Your task to perform on an android device: Open Maps and search for coffee Image 0: 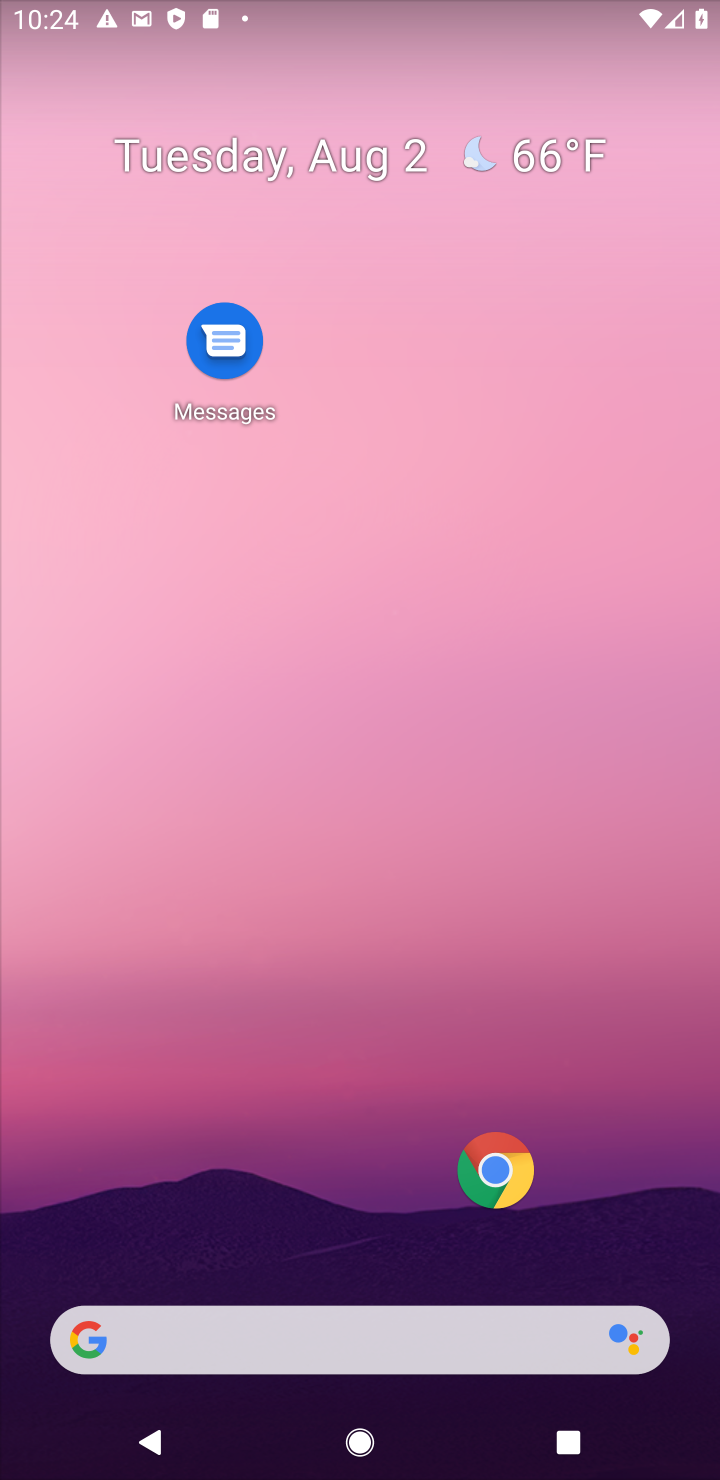
Step 0: drag from (401, 990) to (487, 182)
Your task to perform on an android device: Open Maps and search for coffee Image 1: 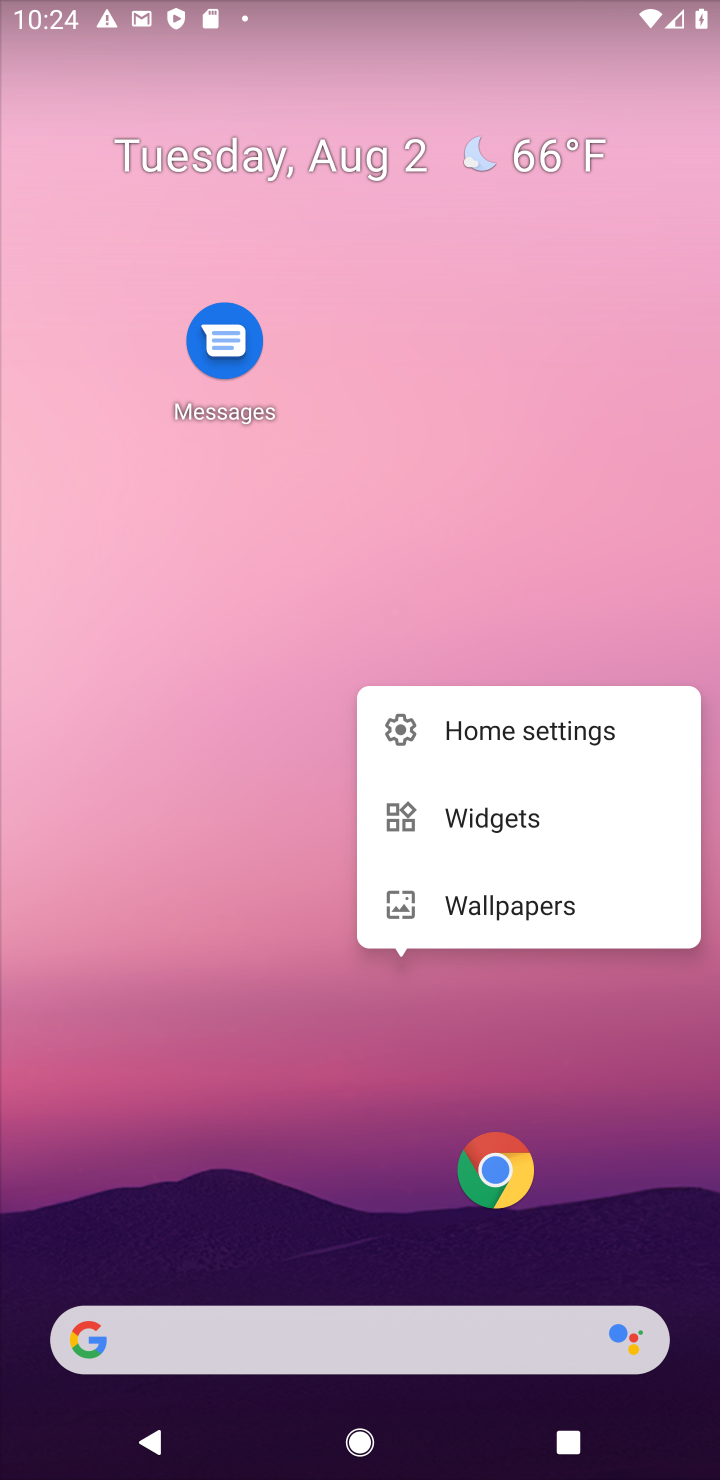
Step 1: drag from (400, 822) to (437, 471)
Your task to perform on an android device: Open Maps and search for coffee Image 2: 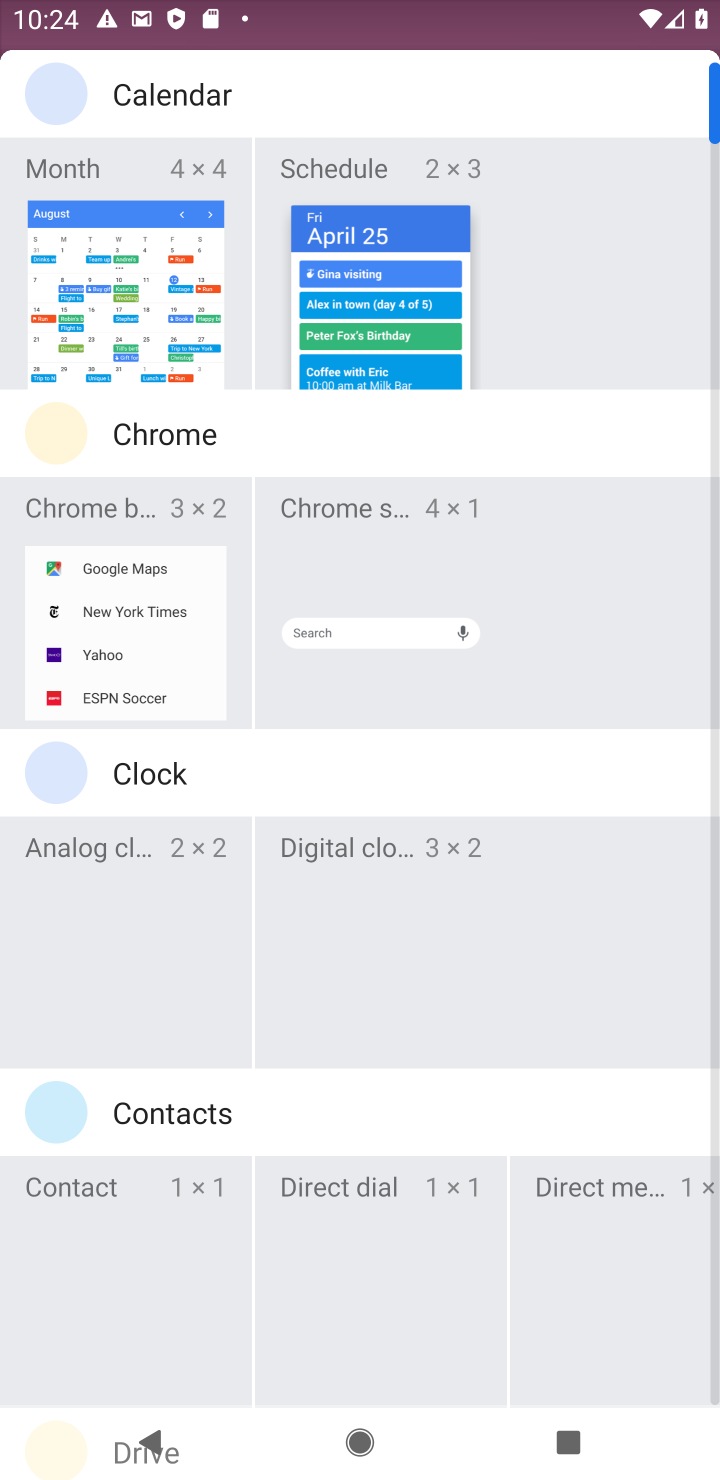
Step 2: drag from (362, 1204) to (433, 521)
Your task to perform on an android device: Open Maps and search for coffee Image 3: 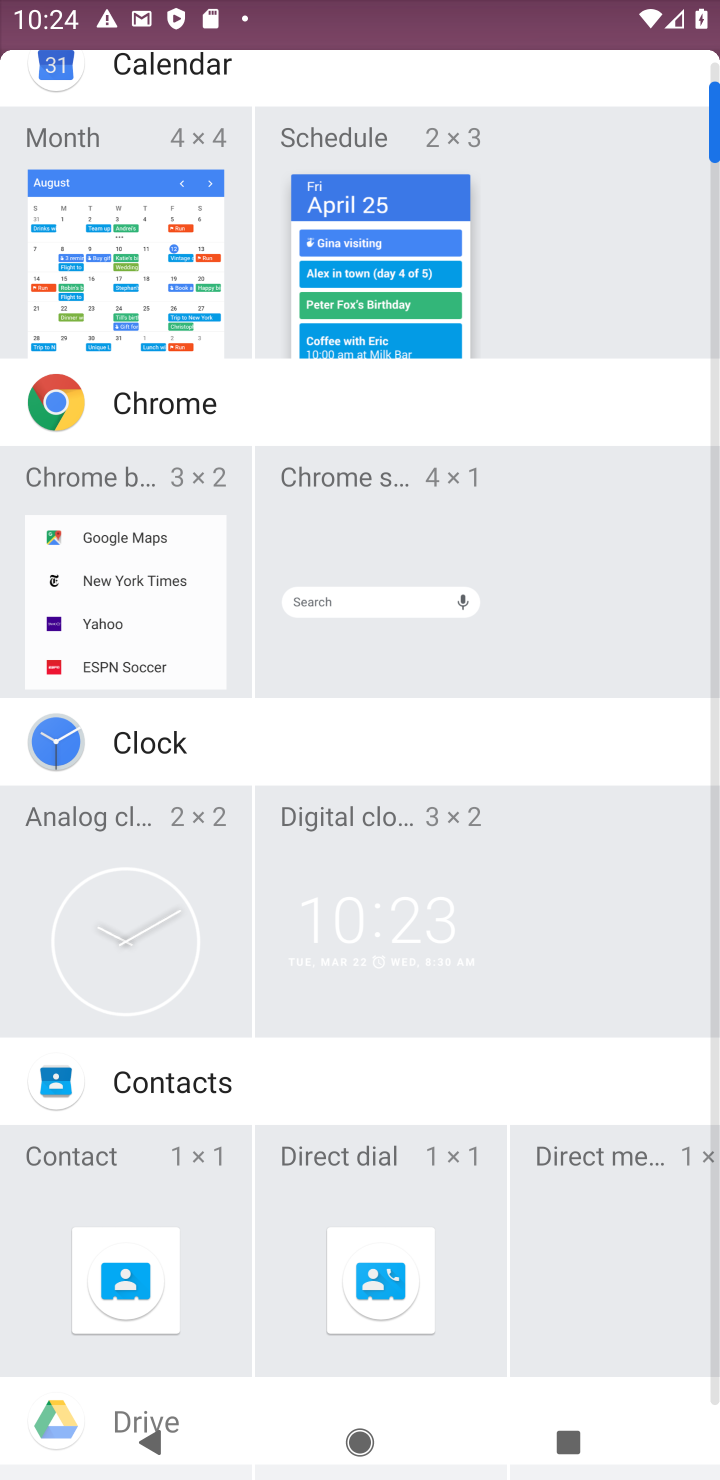
Step 3: press home button
Your task to perform on an android device: Open Maps and search for coffee Image 4: 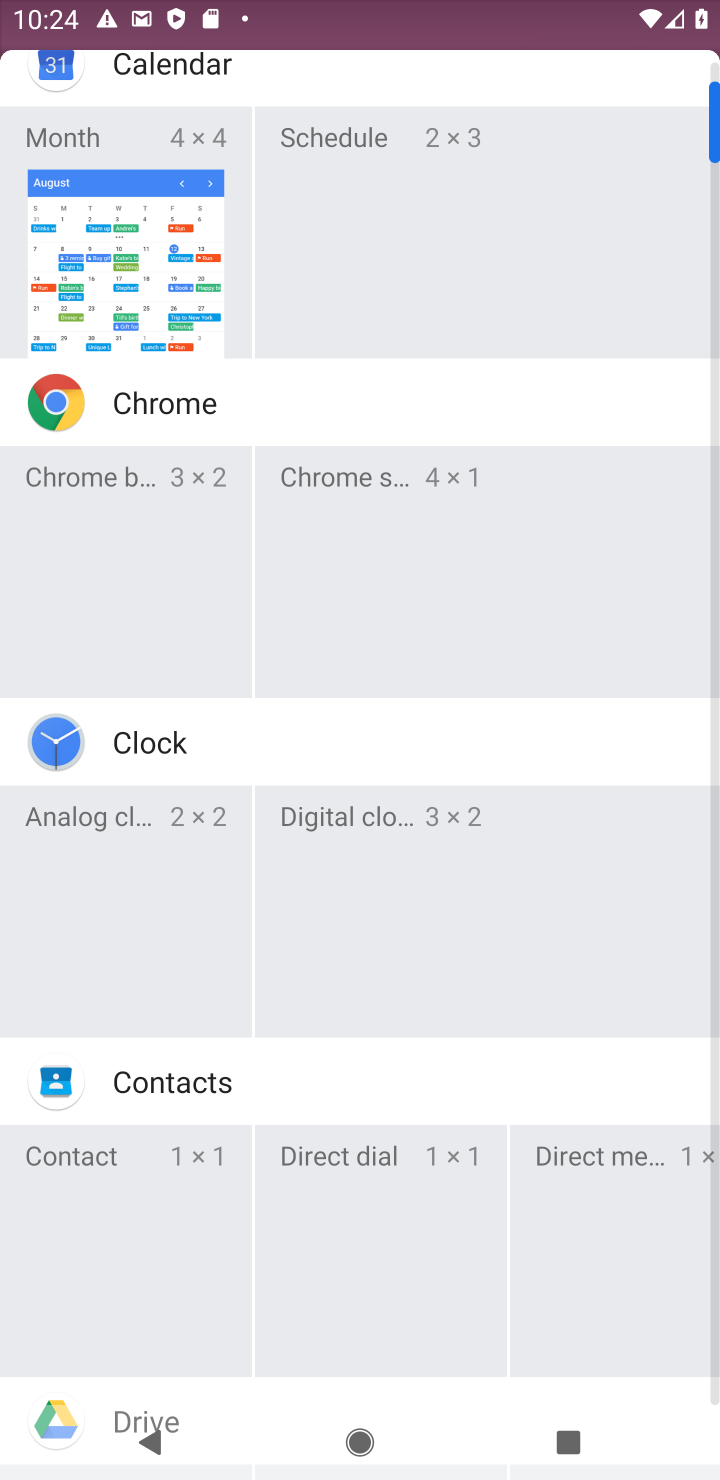
Step 4: press home button
Your task to perform on an android device: Open Maps and search for coffee Image 5: 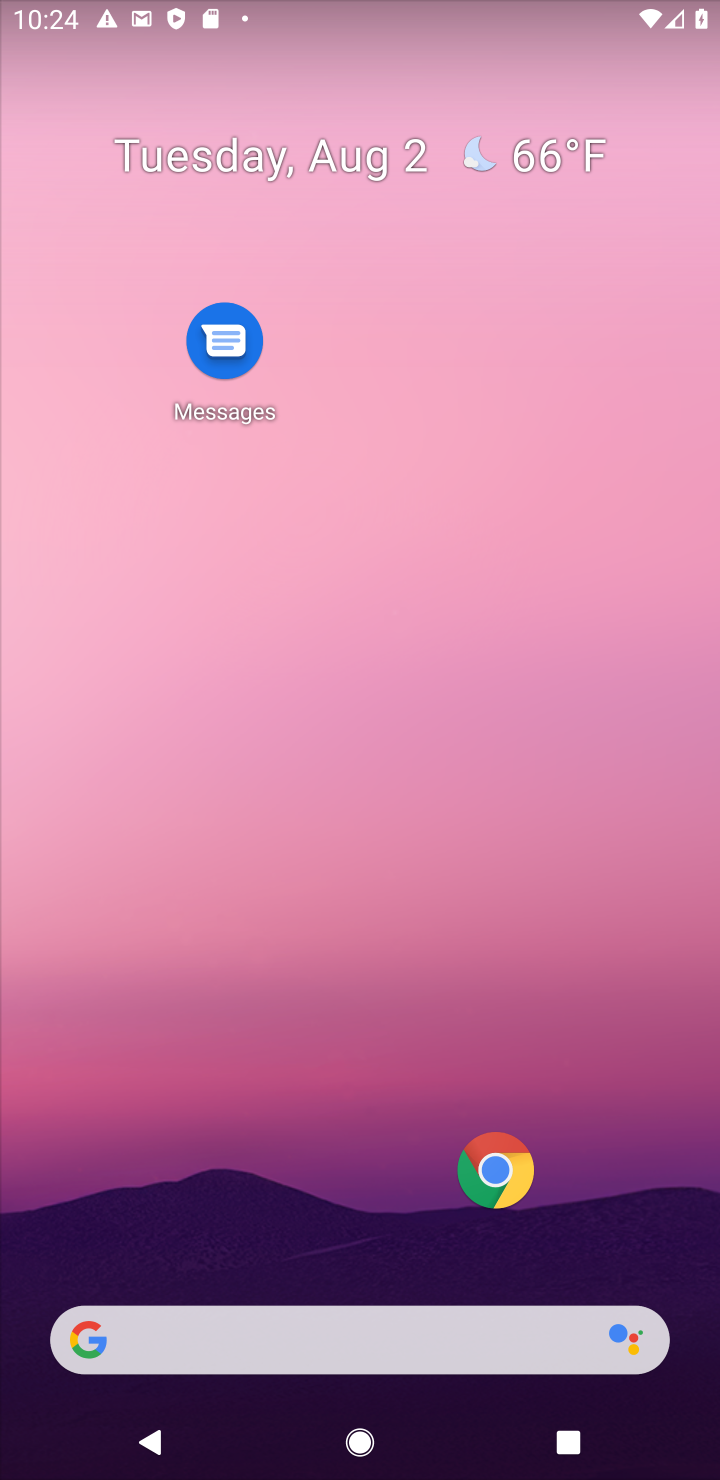
Step 5: drag from (384, 1266) to (443, 563)
Your task to perform on an android device: Open Maps and search for coffee Image 6: 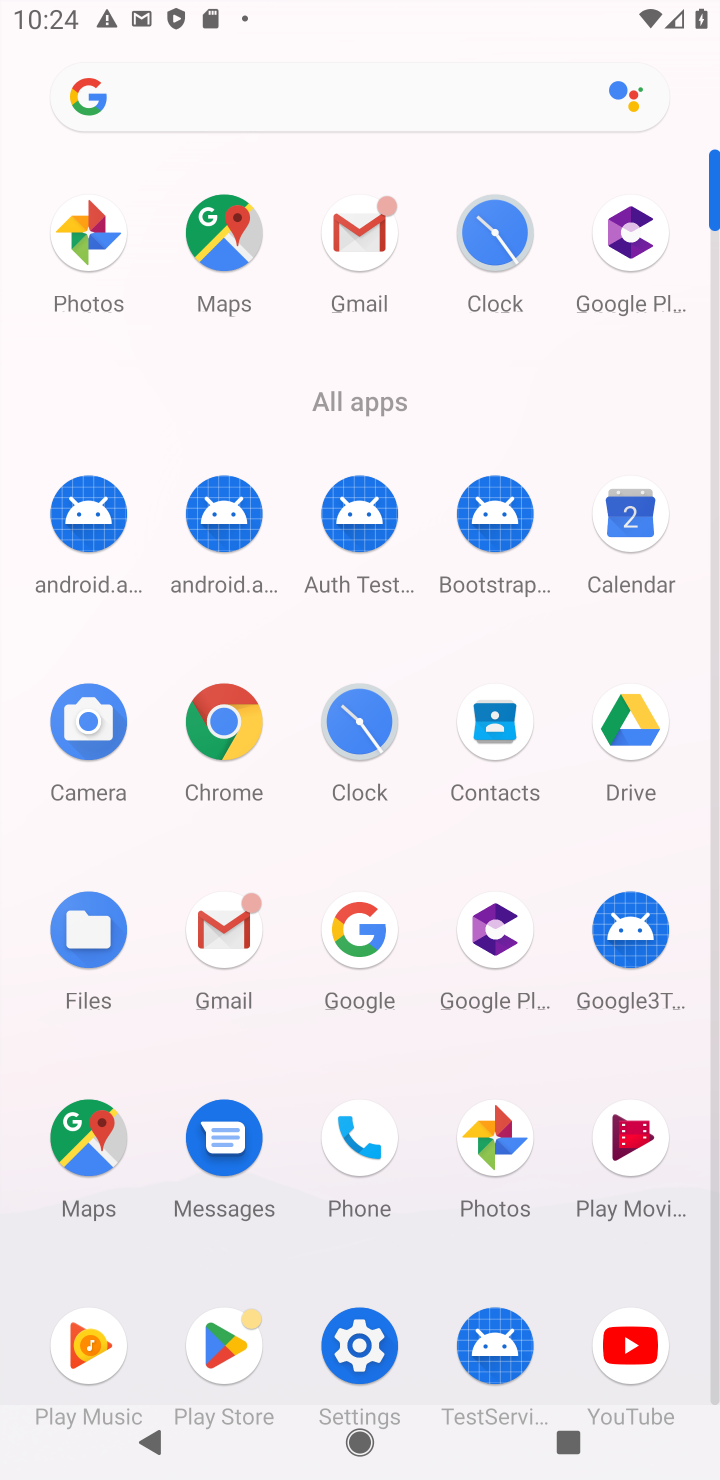
Step 6: click (229, 1325)
Your task to perform on an android device: Open Maps and search for coffee Image 7: 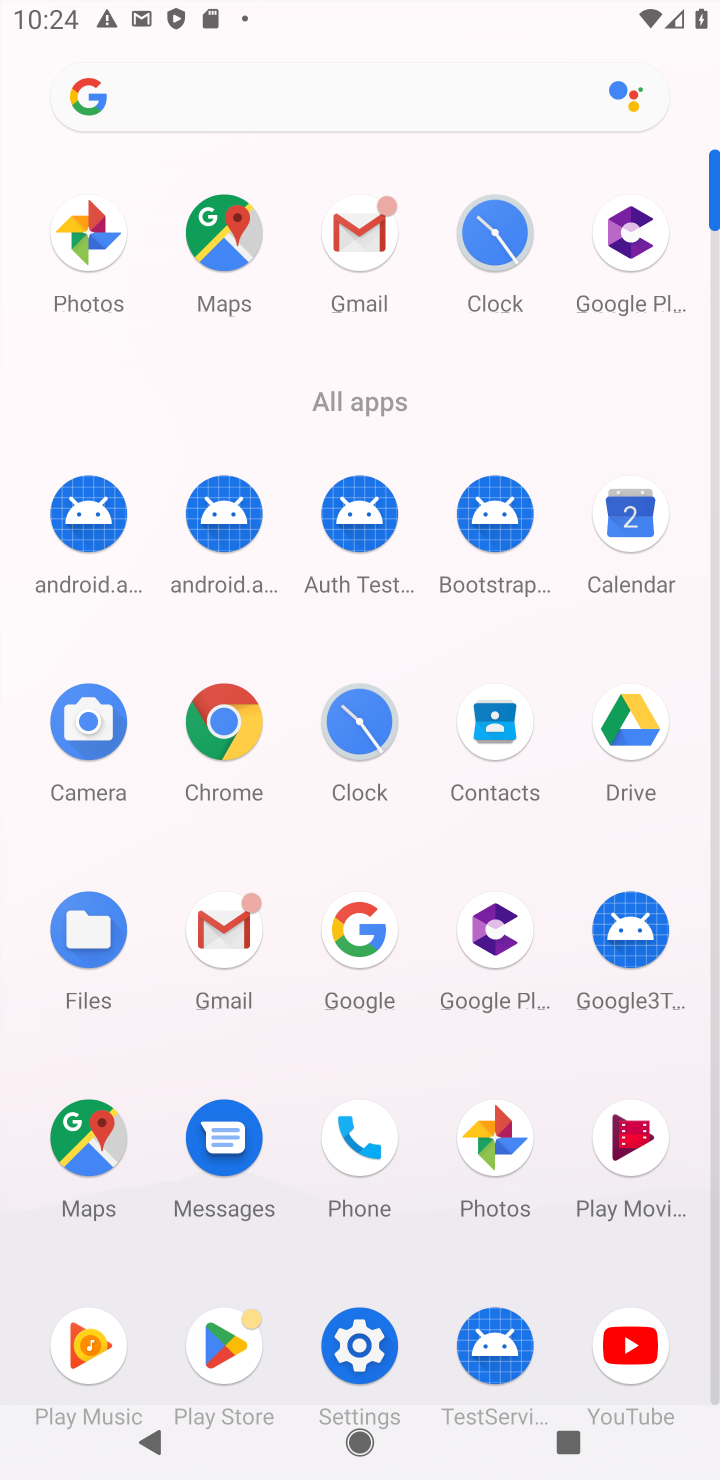
Step 7: click (235, 1336)
Your task to perform on an android device: Open Maps and search for coffee Image 8: 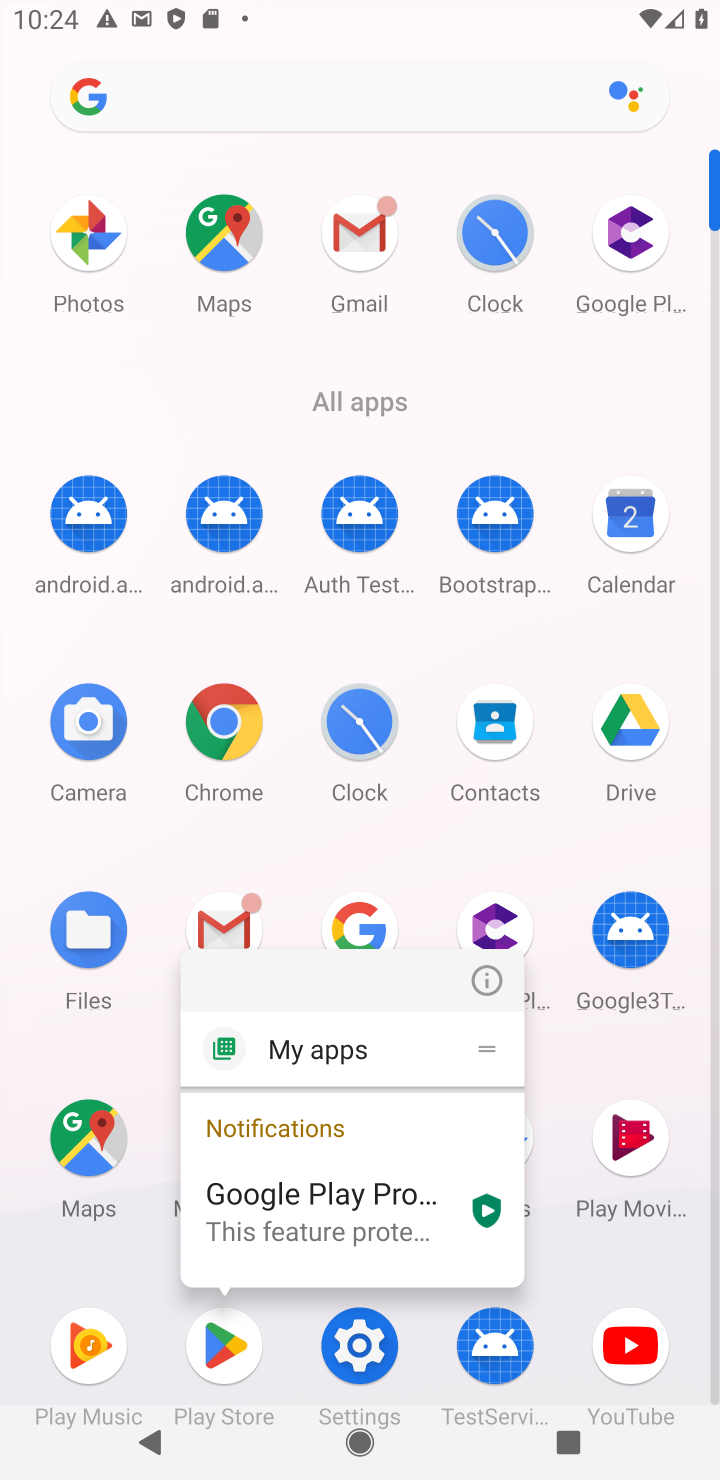
Step 8: click (497, 980)
Your task to perform on an android device: Open Maps and search for coffee Image 9: 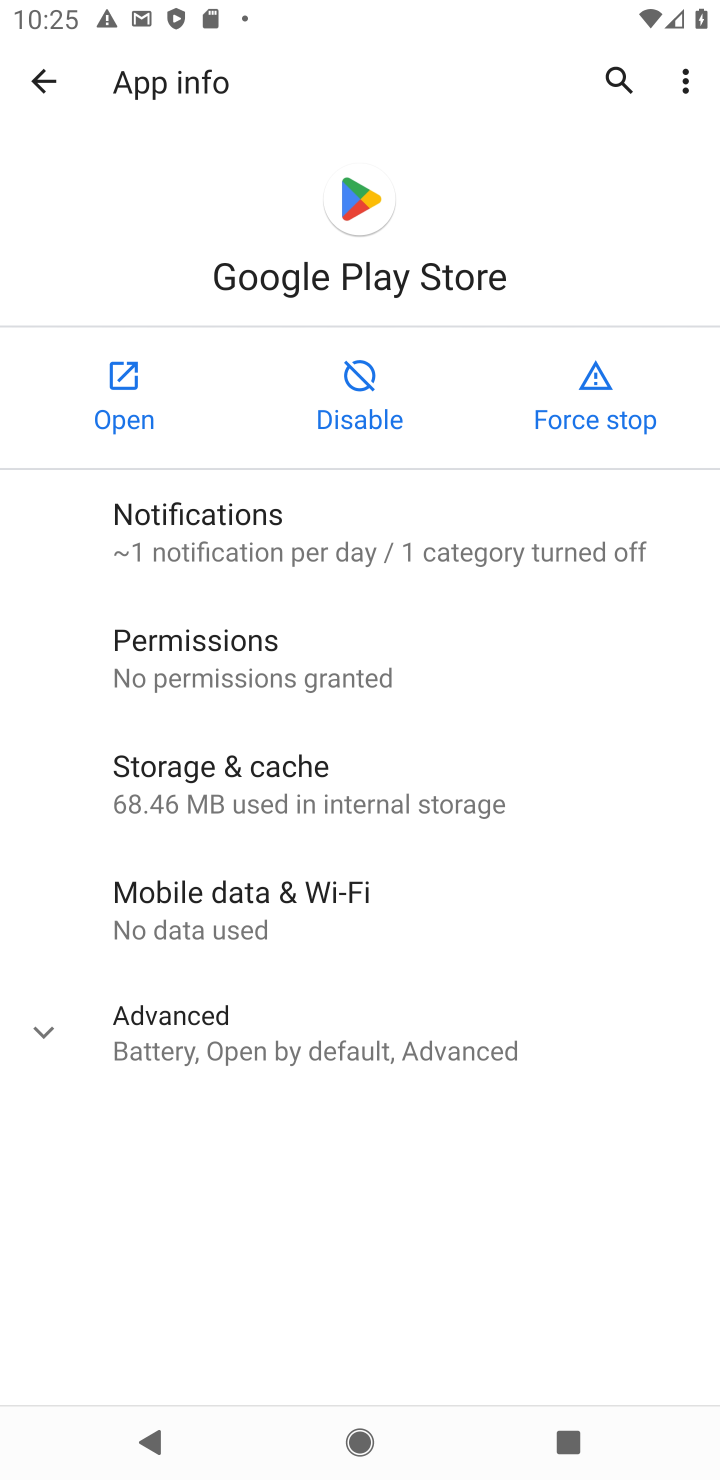
Step 9: click (123, 392)
Your task to perform on an android device: Open Maps and search for coffee Image 10: 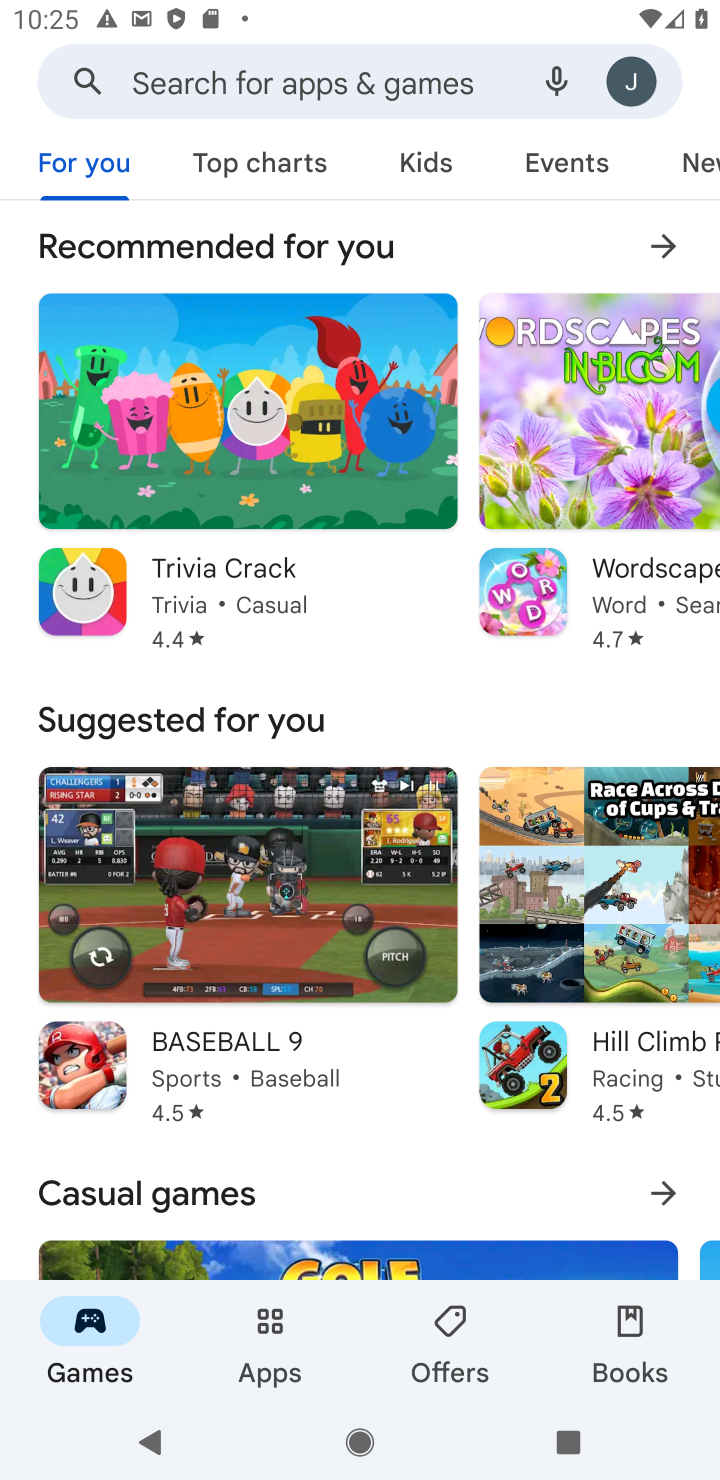
Step 10: drag from (470, 972) to (514, 376)
Your task to perform on an android device: Open Maps and search for coffee Image 11: 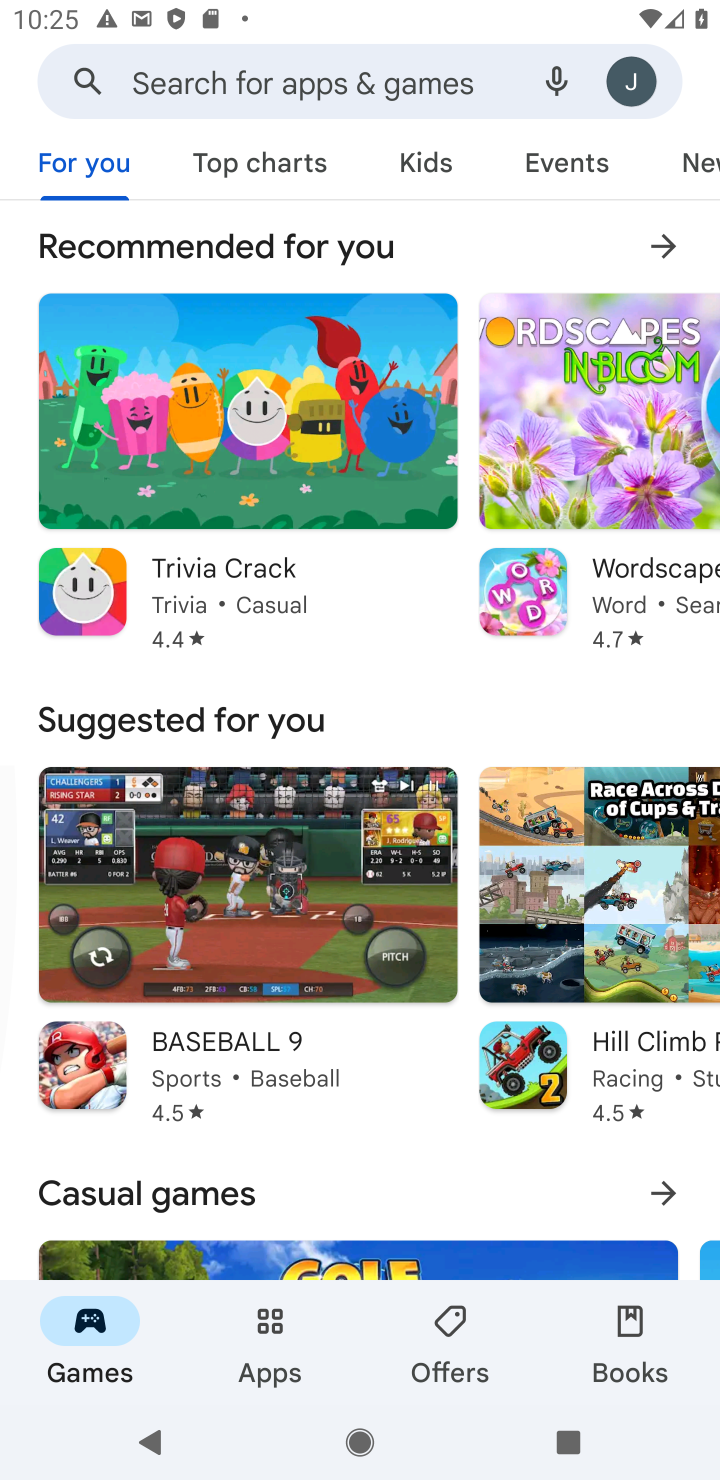
Step 11: drag from (434, 1064) to (407, 524)
Your task to perform on an android device: Open Maps and search for coffee Image 12: 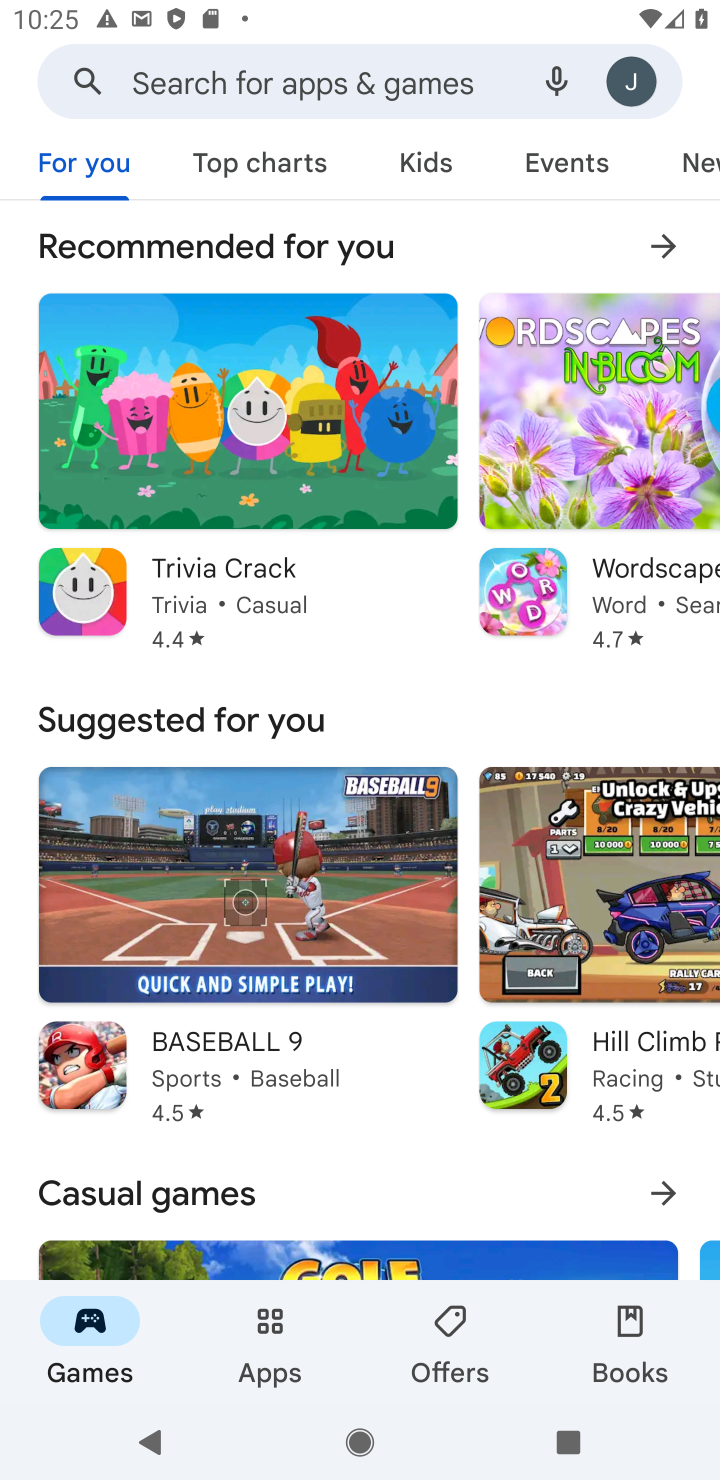
Step 12: click (269, 78)
Your task to perform on an android device: Open Maps and search for coffee Image 13: 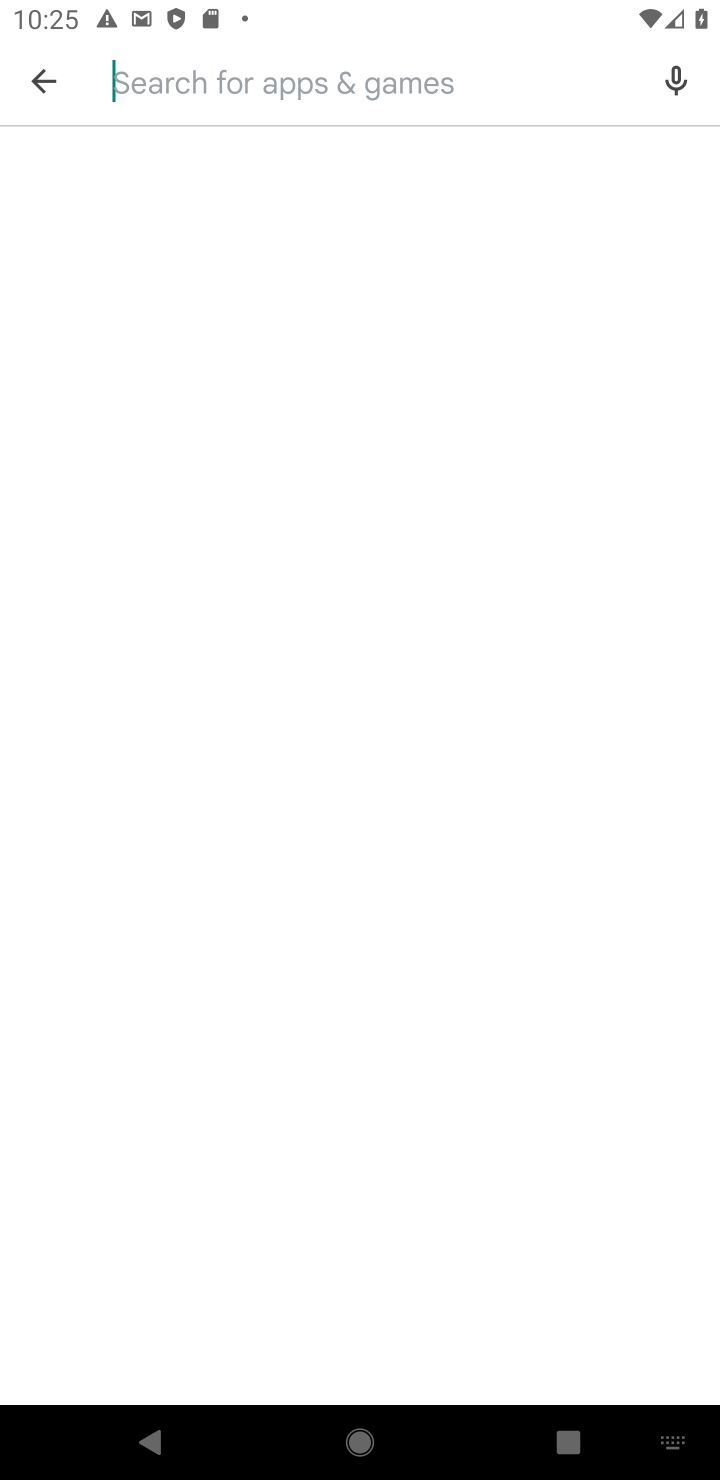
Step 13: press home button
Your task to perform on an android device: Open Maps and search for coffee Image 14: 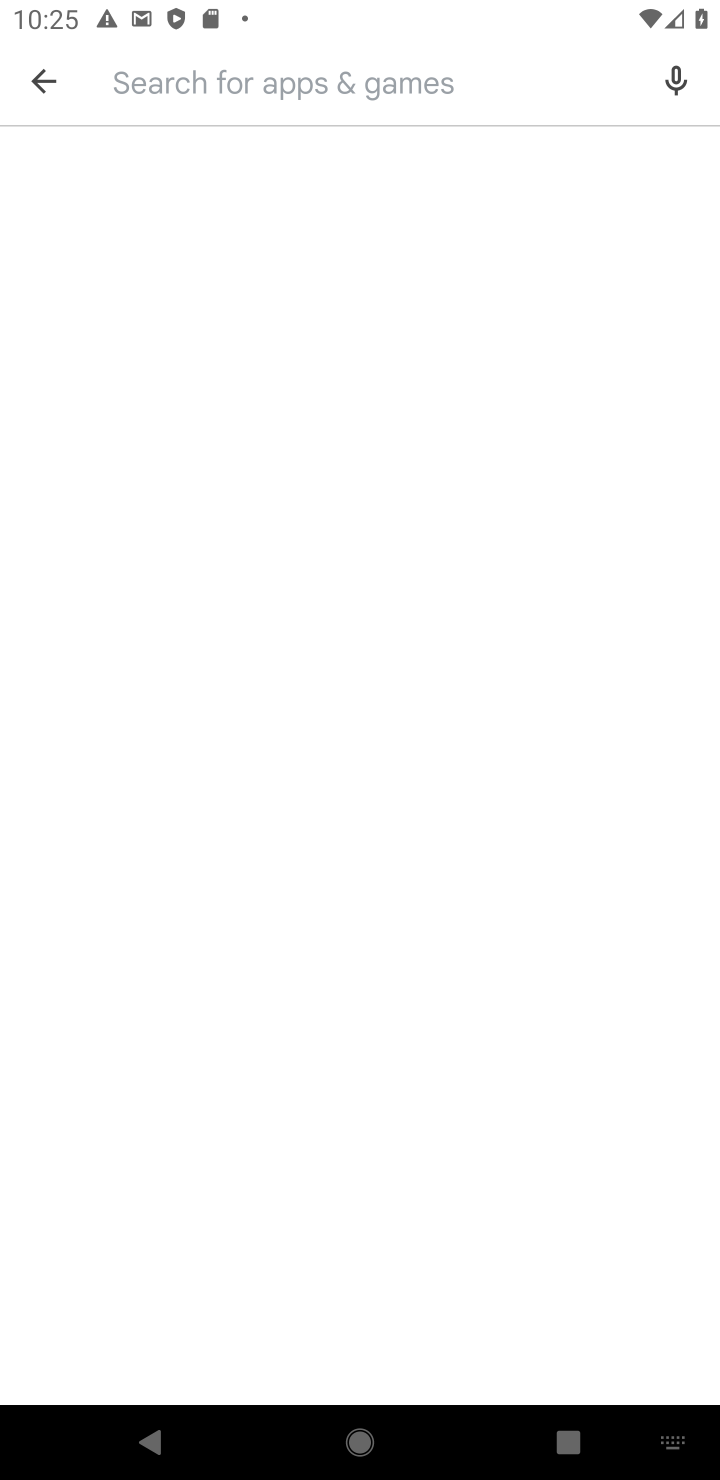
Step 14: press home button
Your task to perform on an android device: Open Maps and search for coffee Image 15: 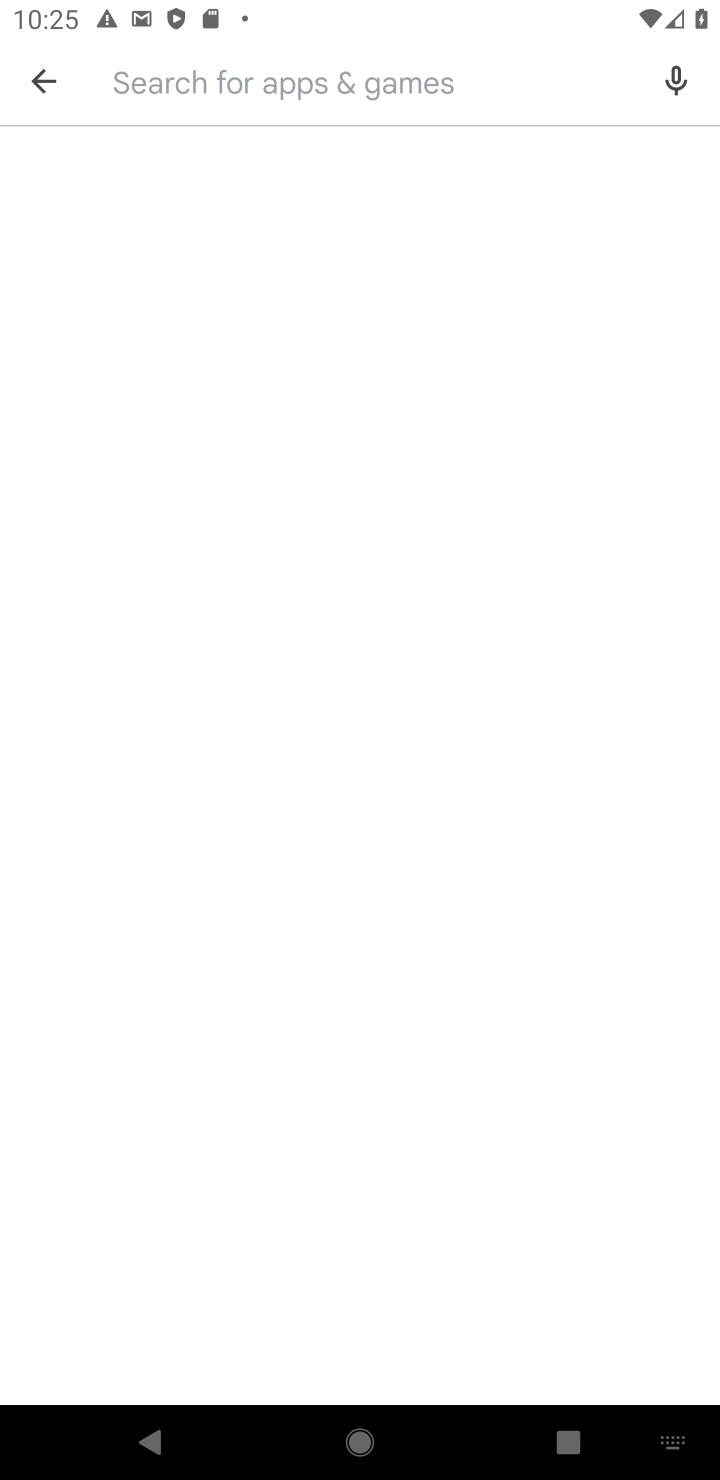
Step 15: click (383, 290)
Your task to perform on an android device: Open Maps and search for coffee Image 16: 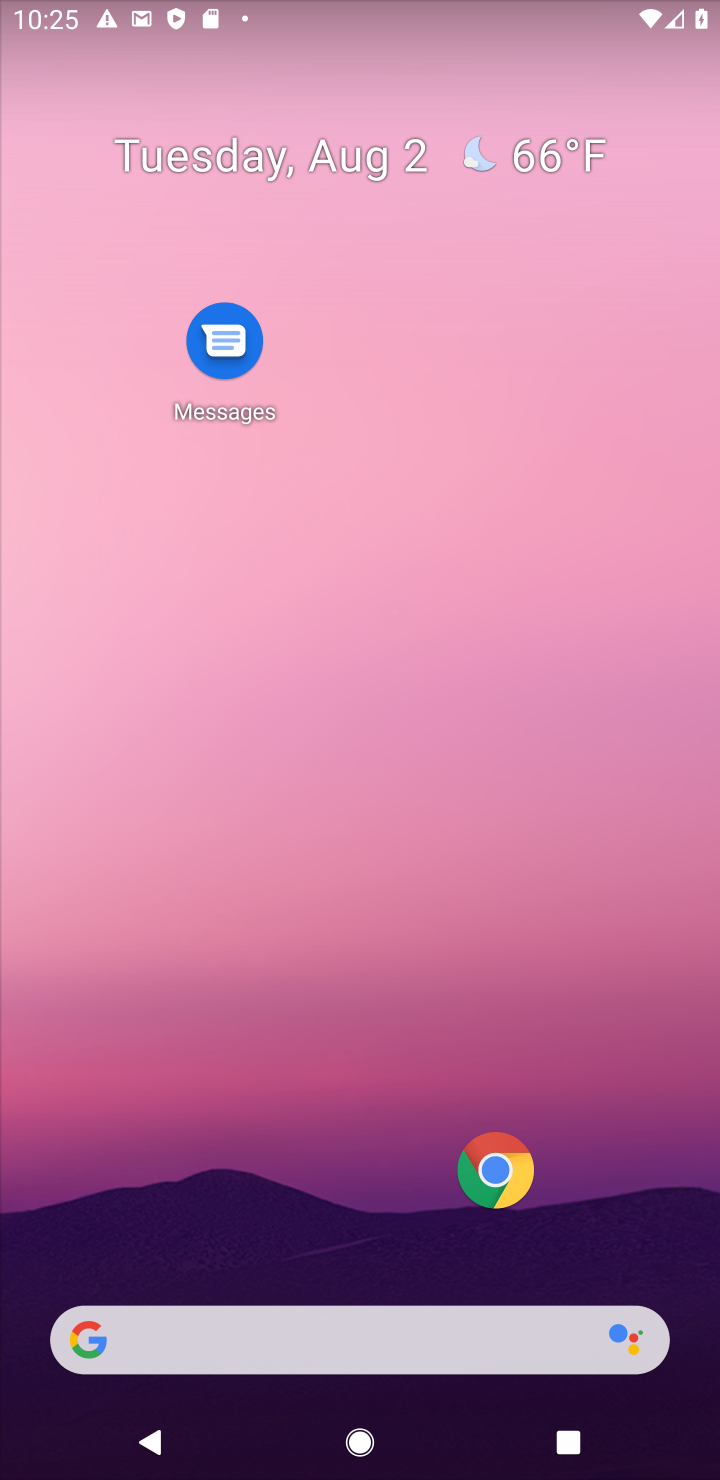
Step 16: drag from (404, 1245) to (468, 95)
Your task to perform on an android device: Open Maps and search for coffee Image 17: 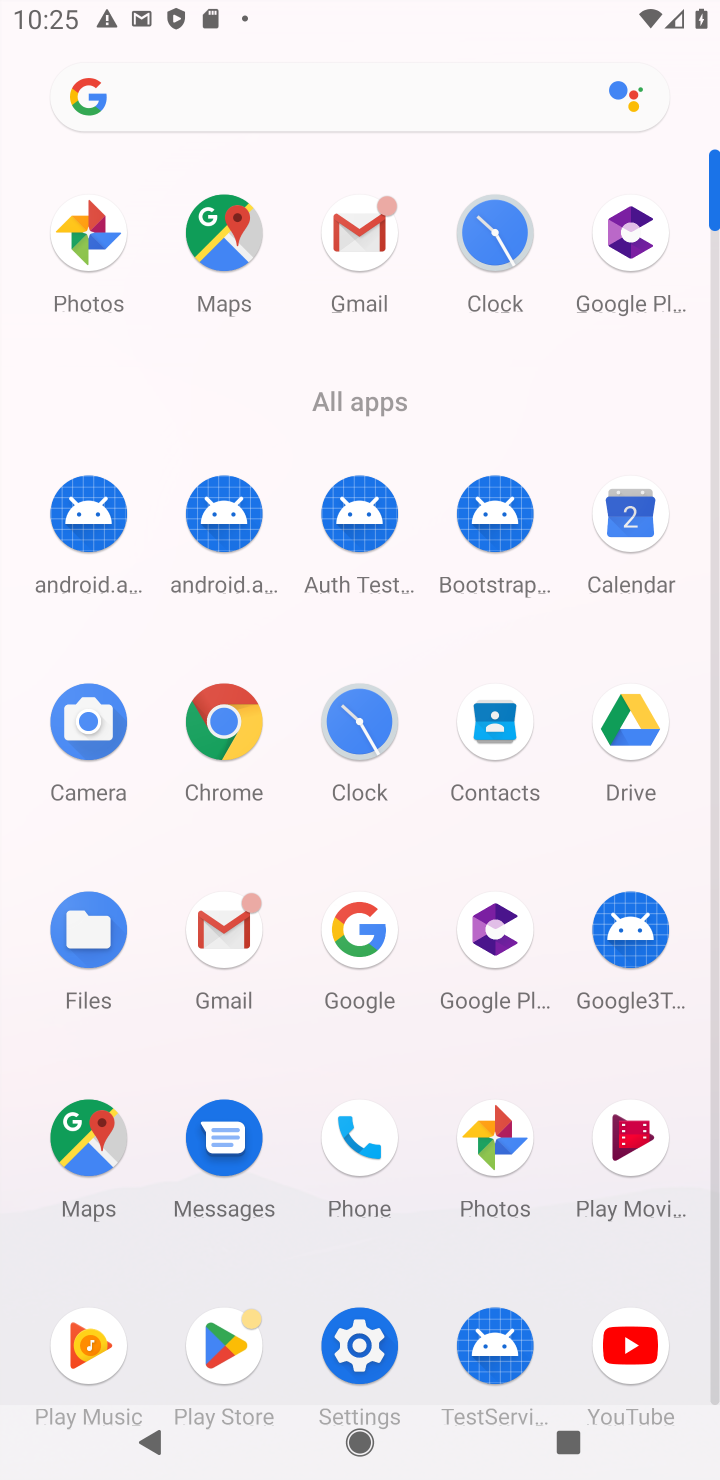
Step 17: click (212, 219)
Your task to perform on an android device: Open Maps and search for coffee Image 18: 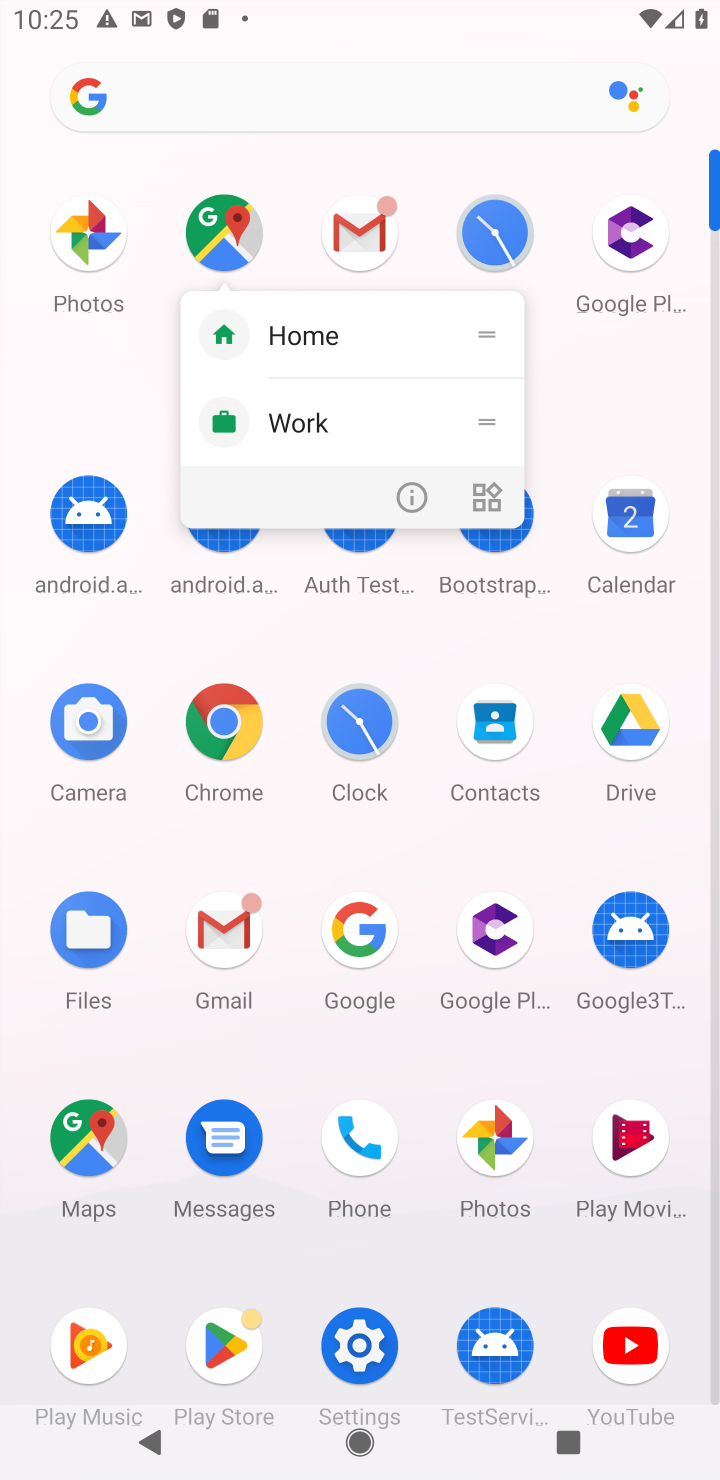
Step 18: click (392, 501)
Your task to perform on an android device: Open Maps and search for coffee Image 19: 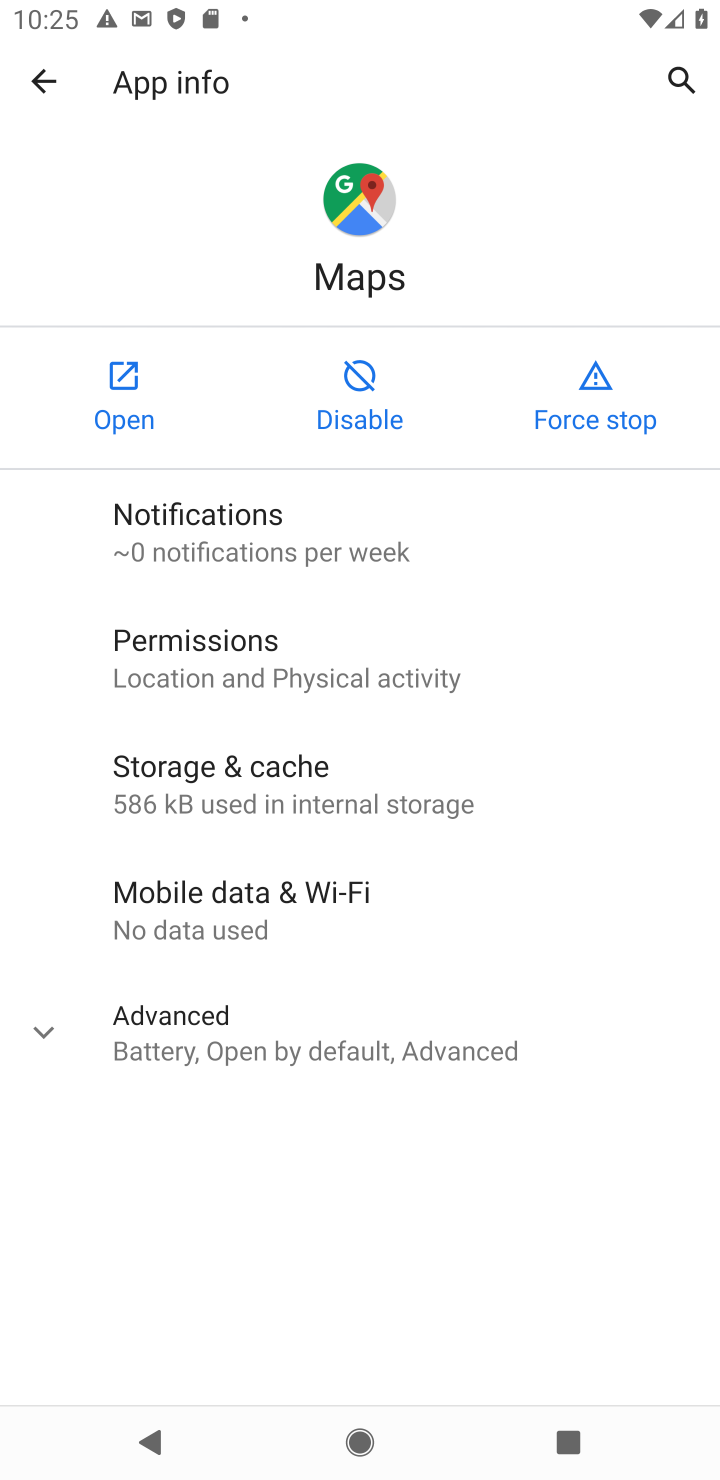
Step 19: click (122, 414)
Your task to perform on an android device: Open Maps and search for coffee Image 20: 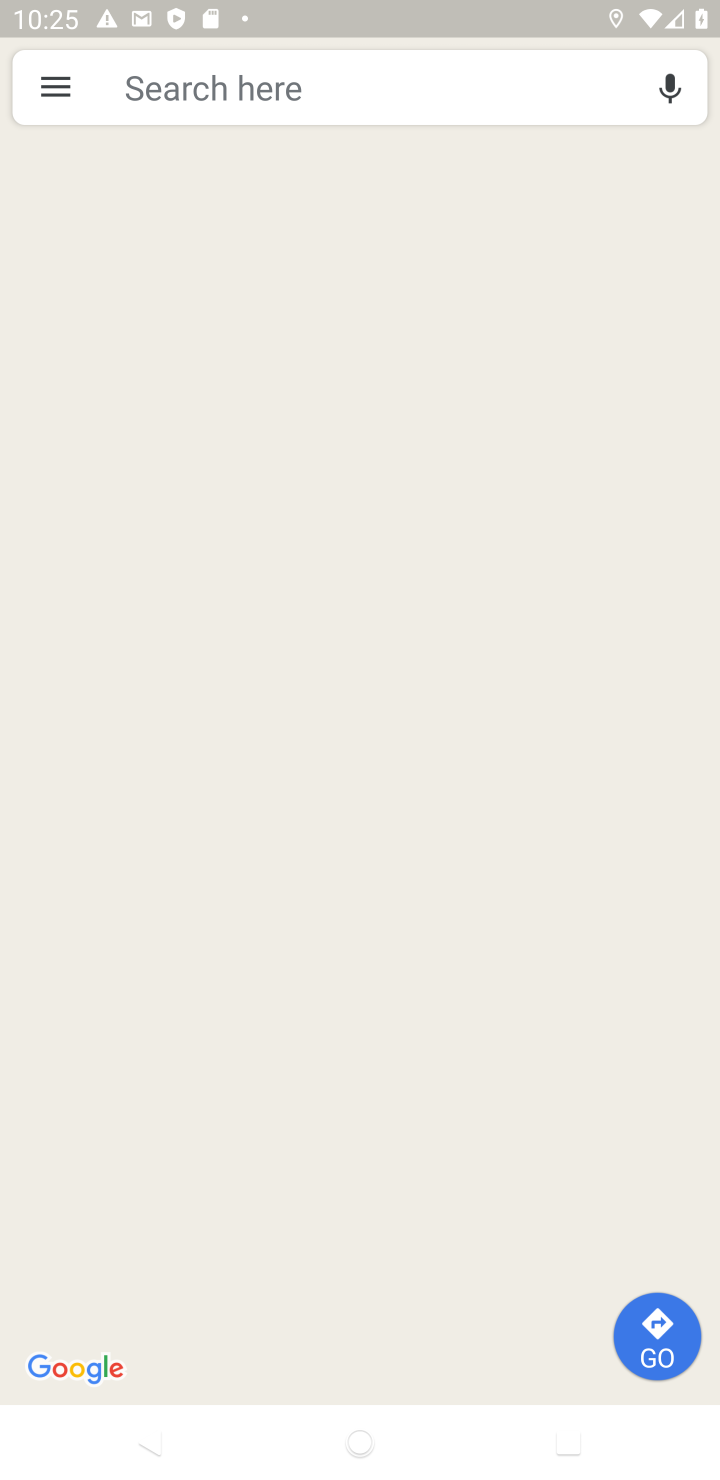
Step 20: drag from (348, 431) to (367, 1210)
Your task to perform on an android device: Open Maps and search for coffee Image 21: 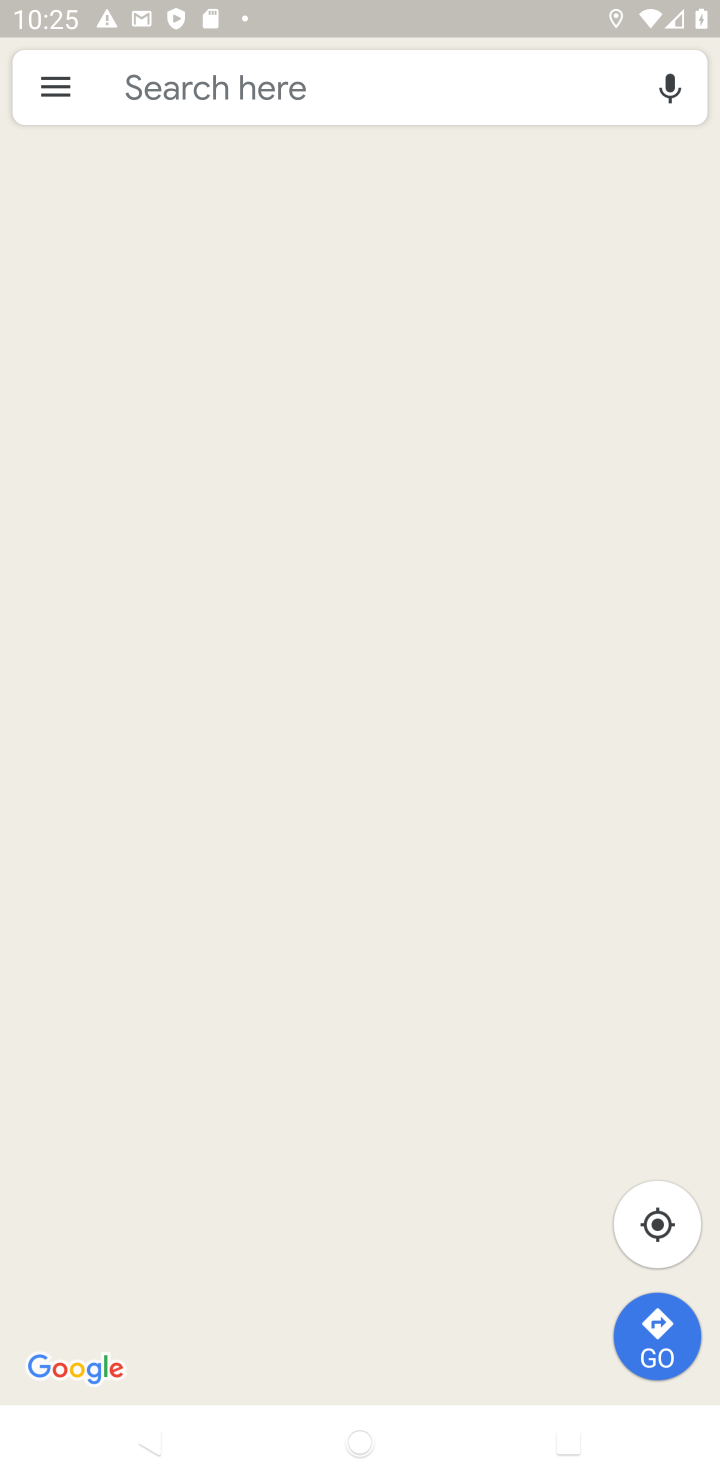
Step 21: click (369, 86)
Your task to perform on an android device: Open Maps and search for coffee Image 22: 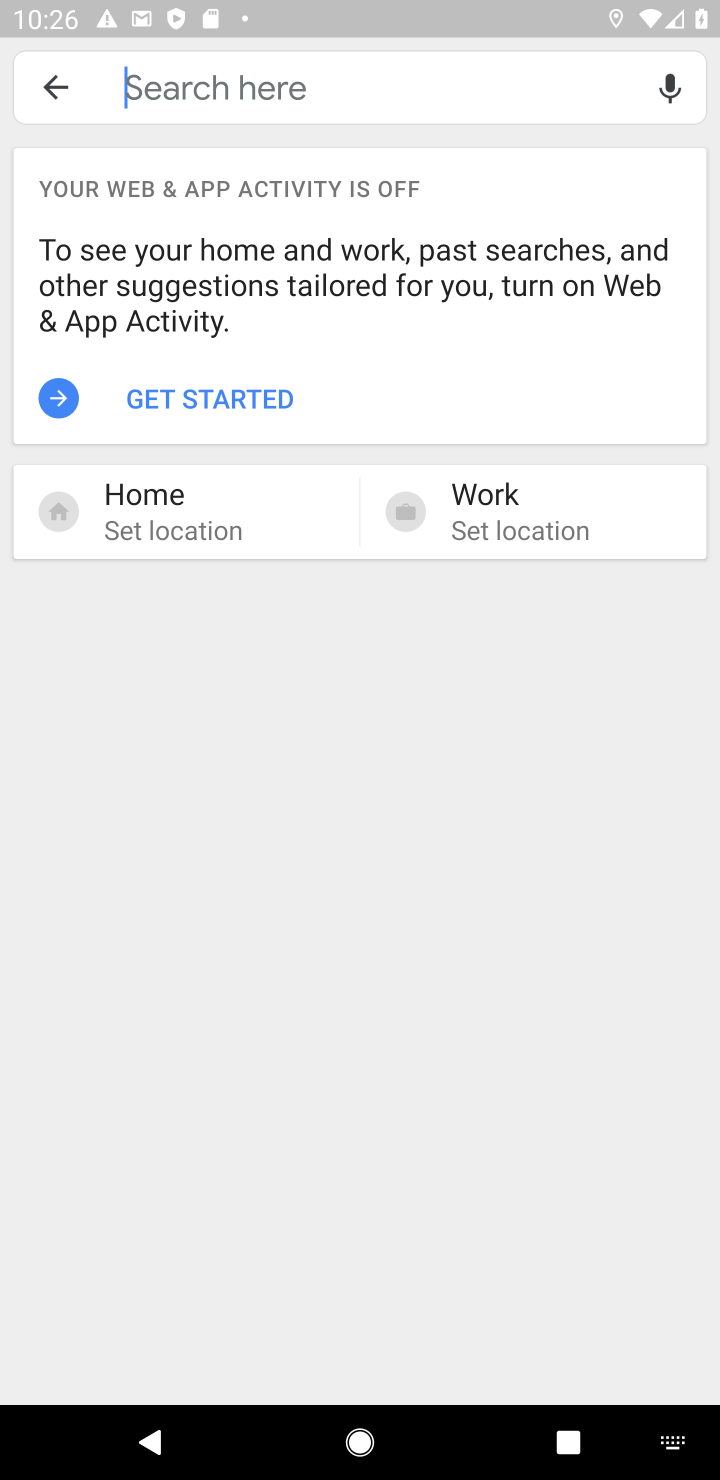
Step 22: type "coffee"
Your task to perform on an android device: Open Maps and search for coffee Image 23: 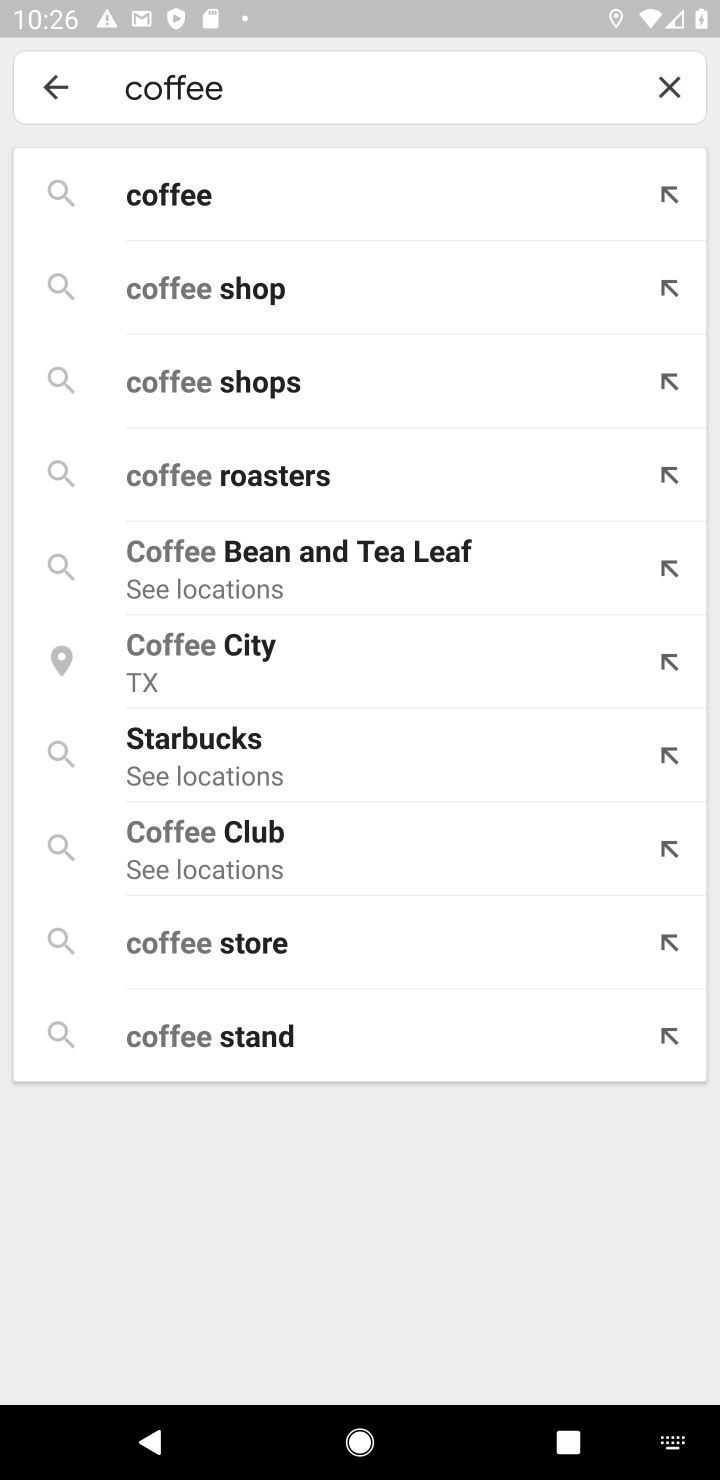
Step 23: click (240, 195)
Your task to perform on an android device: Open Maps and search for coffee Image 24: 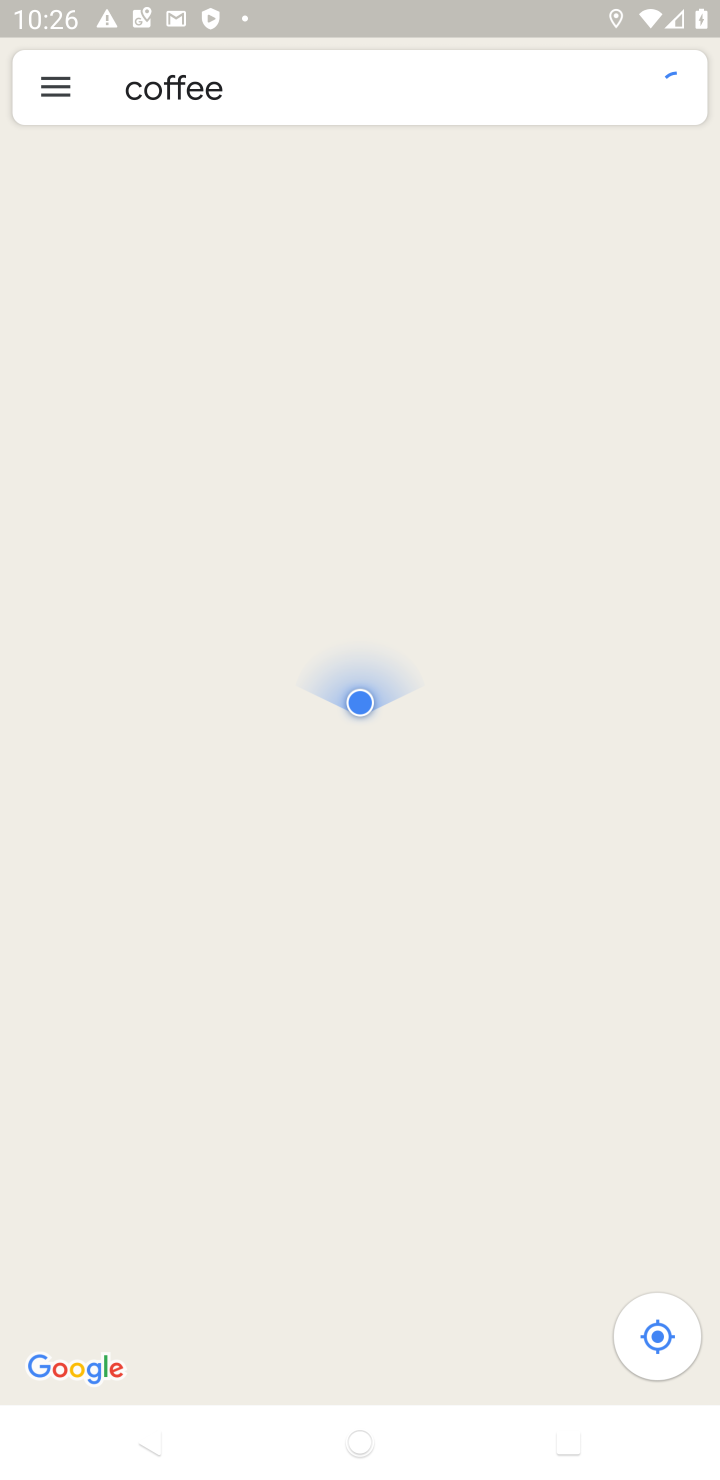
Step 24: task complete